Your task to perform on an android device: open app "ColorNote Notepad Notes" (install if not already installed) and go to login screen Image 0: 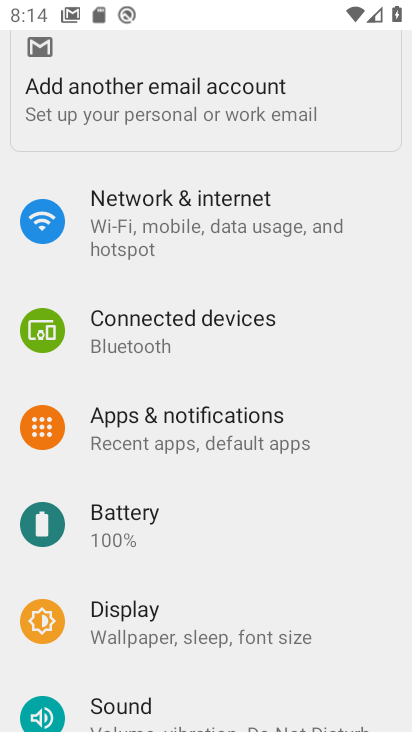
Step 0: press home button
Your task to perform on an android device: open app "ColorNote Notepad Notes" (install if not already installed) and go to login screen Image 1: 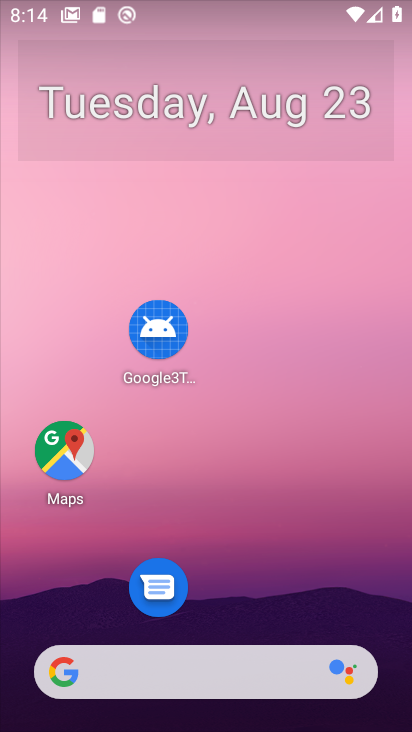
Step 1: drag from (273, 606) to (274, 137)
Your task to perform on an android device: open app "ColorNote Notepad Notes" (install if not already installed) and go to login screen Image 2: 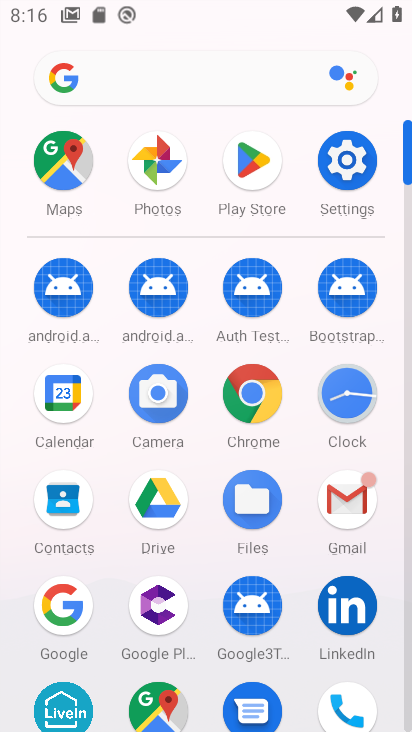
Step 2: click (252, 170)
Your task to perform on an android device: open app "ColorNote Notepad Notes" (install if not already installed) and go to login screen Image 3: 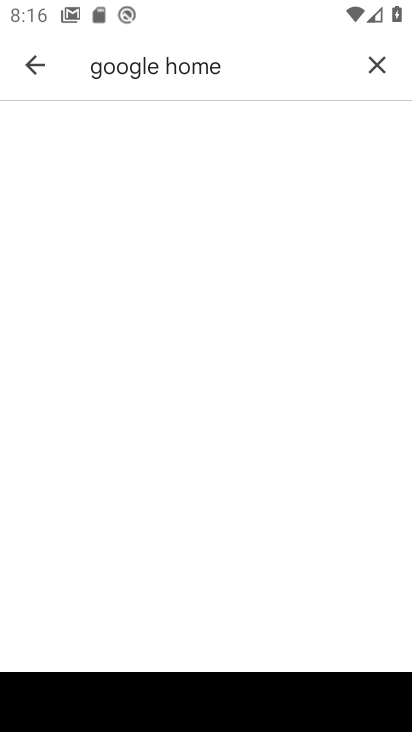
Step 3: click (368, 72)
Your task to perform on an android device: open app "ColorNote Notepad Notes" (install if not already installed) and go to login screen Image 4: 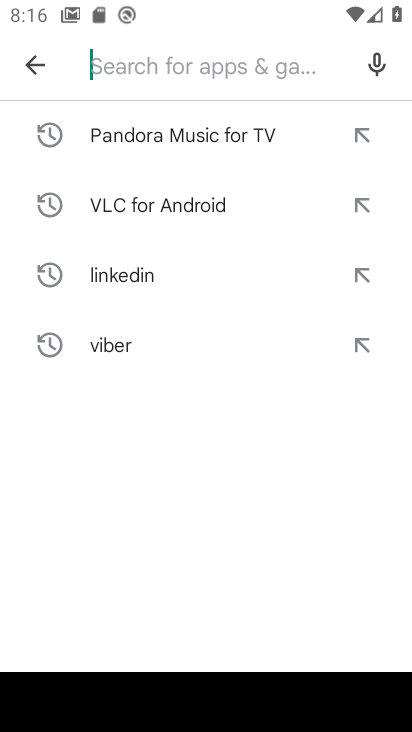
Step 4: type "colornote pasd"
Your task to perform on an android device: open app "ColorNote Notepad Notes" (install if not already installed) and go to login screen Image 5: 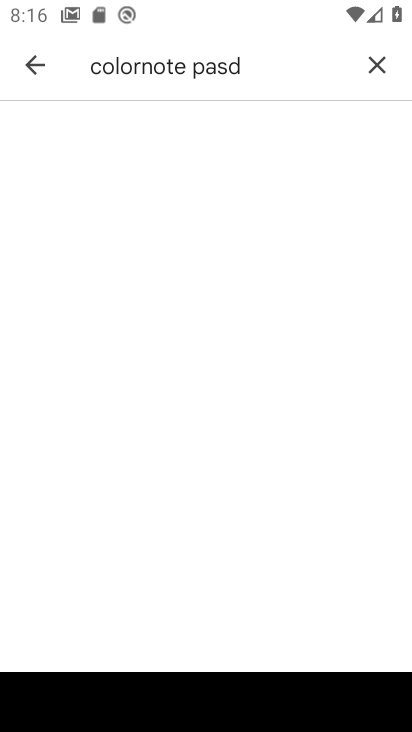
Step 5: task complete